Your task to perform on an android device: What's the weather going to be this weekend? Image 0: 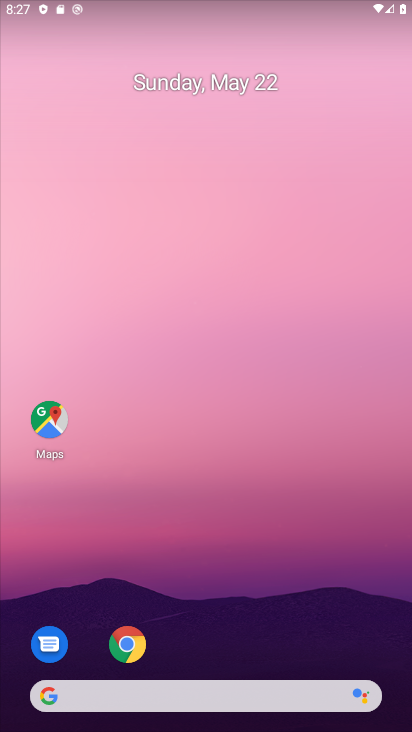
Step 0: drag from (19, 299) to (383, 396)
Your task to perform on an android device: What's the weather going to be this weekend? Image 1: 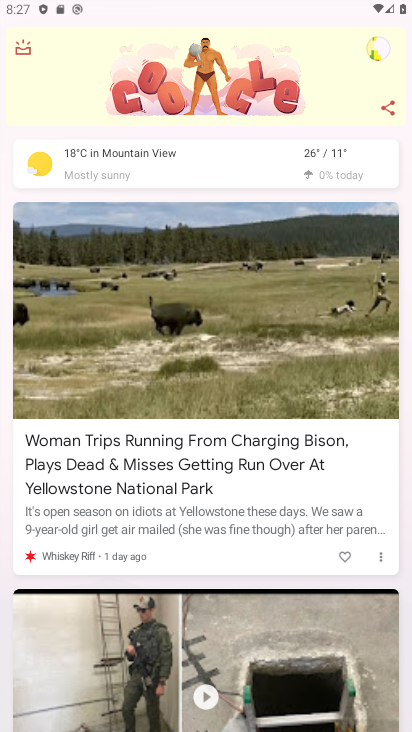
Step 1: click (39, 165)
Your task to perform on an android device: What's the weather going to be this weekend? Image 2: 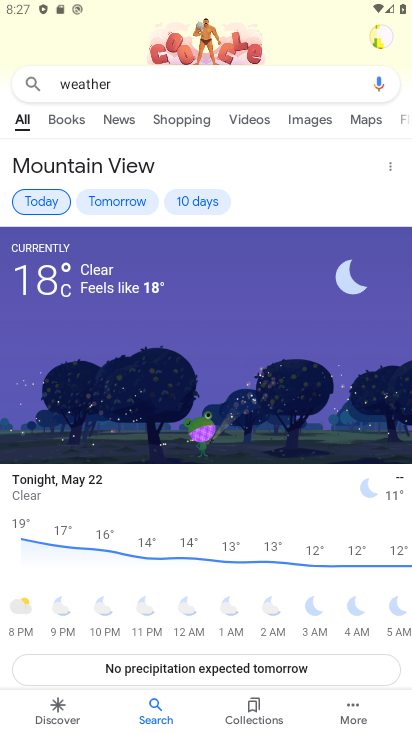
Step 2: click (195, 205)
Your task to perform on an android device: What's the weather going to be this weekend? Image 3: 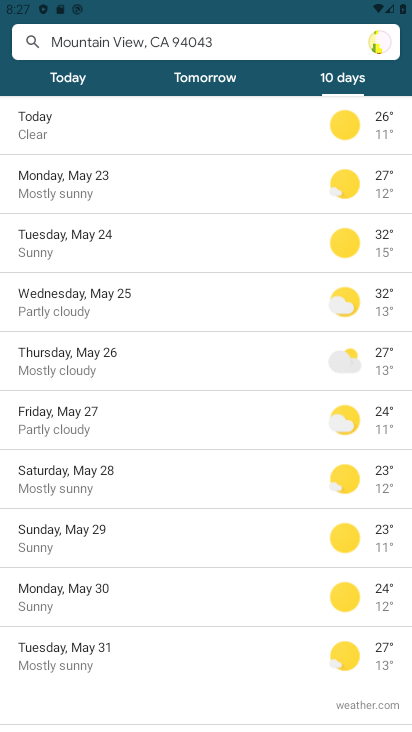
Step 3: task complete